Your task to perform on an android device: Open battery settings Image 0: 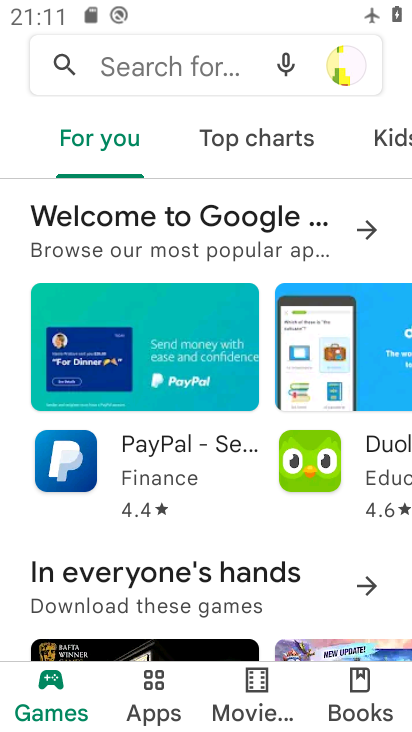
Step 0: press home button
Your task to perform on an android device: Open battery settings Image 1: 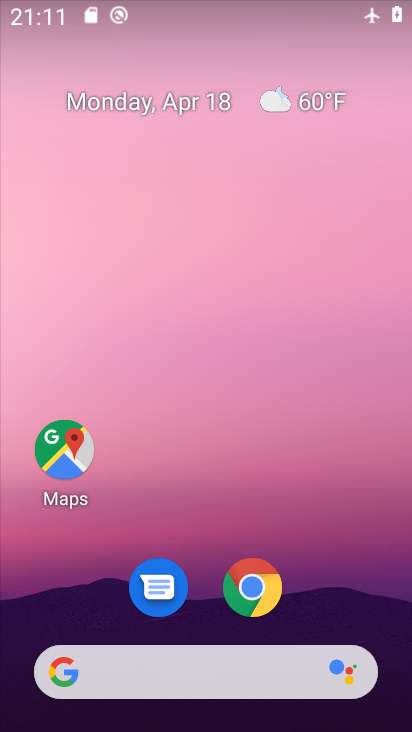
Step 1: drag from (298, 576) to (260, 62)
Your task to perform on an android device: Open battery settings Image 2: 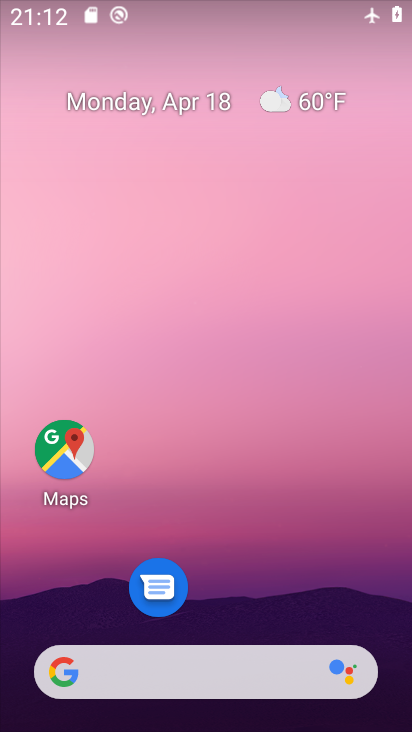
Step 2: drag from (350, 568) to (121, 0)
Your task to perform on an android device: Open battery settings Image 3: 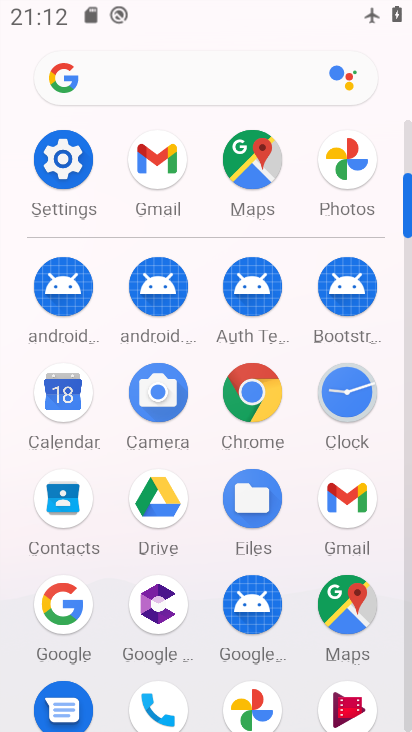
Step 3: click (58, 193)
Your task to perform on an android device: Open battery settings Image 4: 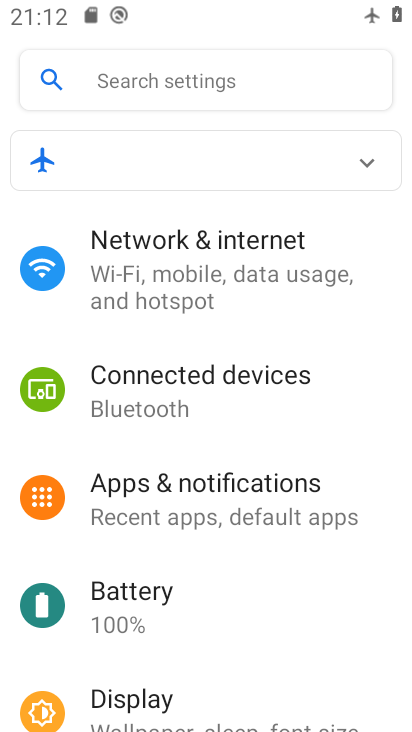
Step 4: click (284, 598)
Your task to perform on an android device: Open battery settings Image 5: 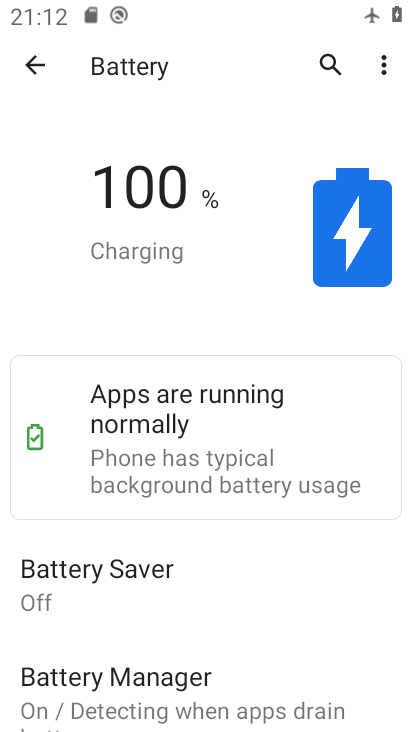
Step 5: task complete